Your task to perform on an android device: see sites visited before in the chrome app Image 0: 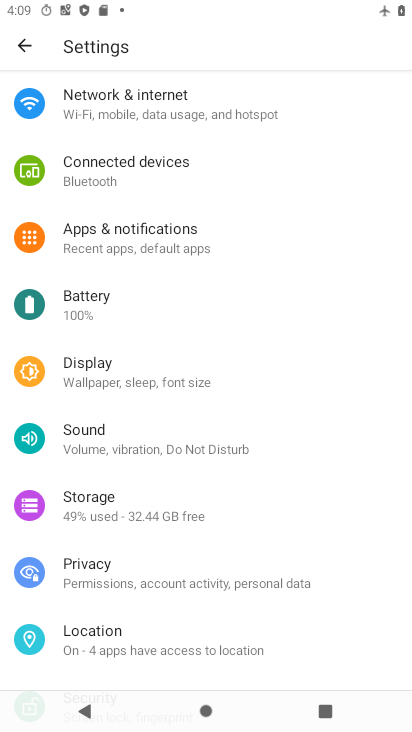
Step 0: press home button
Your task to perform on an android device: see sites visited before in the chrome app Image 1: 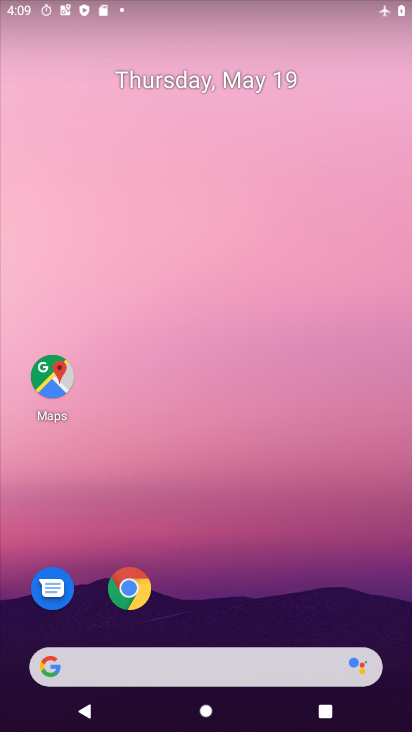
Step 1: click (137, 601)
Your task to perform on an android device: see sites visited before in the chrome app Image 2: 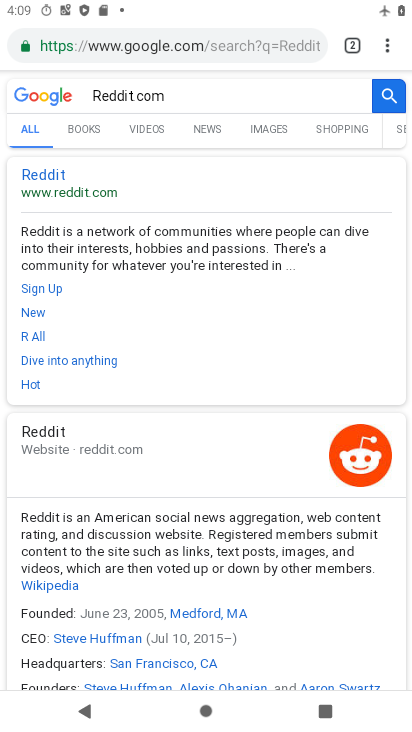
Step 2: click (388, 51)
Your task to perform on an android device: see sites visited before in the chrome app Image 3: 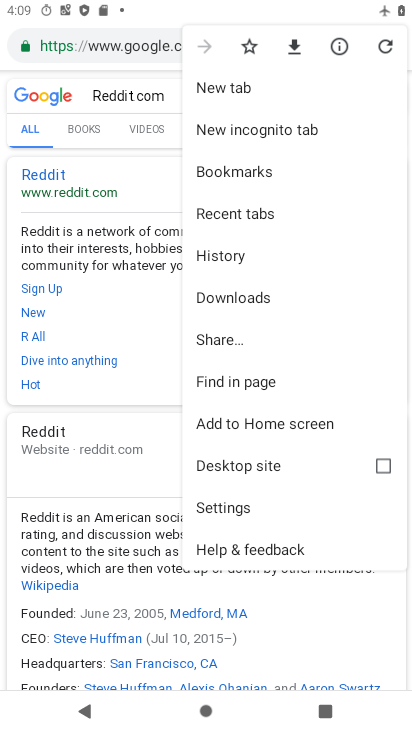
Step 3: click (228, 259)
Your task to perform on an android device: see sites visited before in the chrome app Image 4: 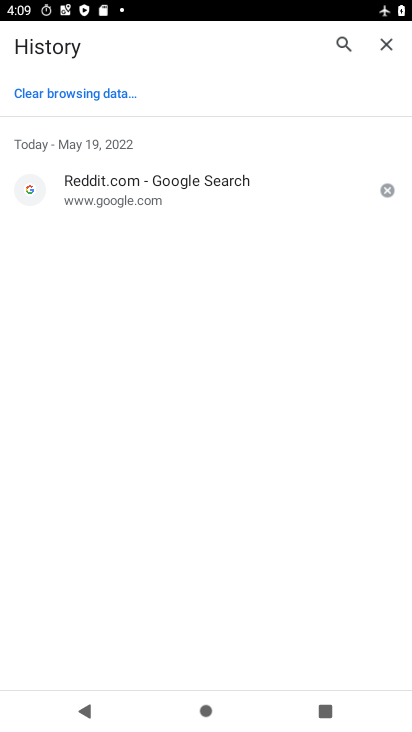
Step 4: task complete